Your task to perform on an android device: toggle priority inbox in the gmail app Image 0: 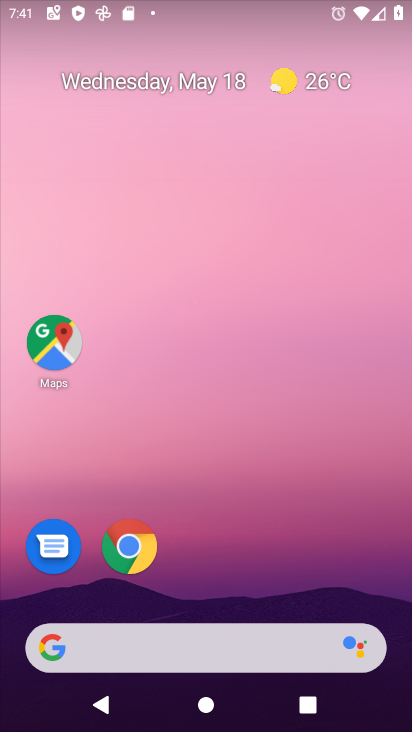
Step 0: drag from (379, 605) to (332, 57)
Your task to perform on an android device: toggle priority inbox in the gmail app Image 1: 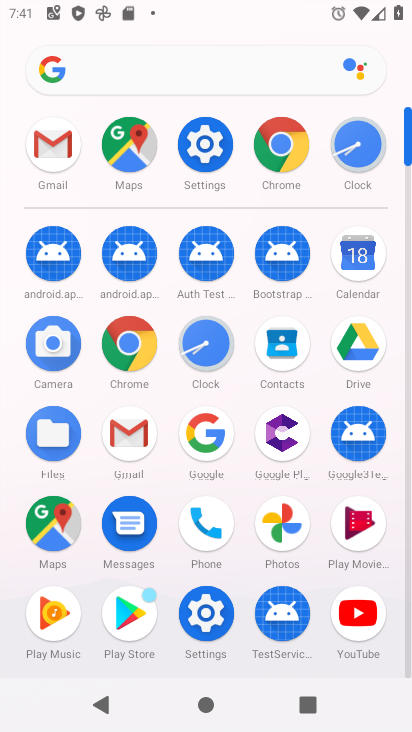
Step 1: click (129, 438)
Your task to perform on an android device: toggle priority inbox in the gmail app Image 2: 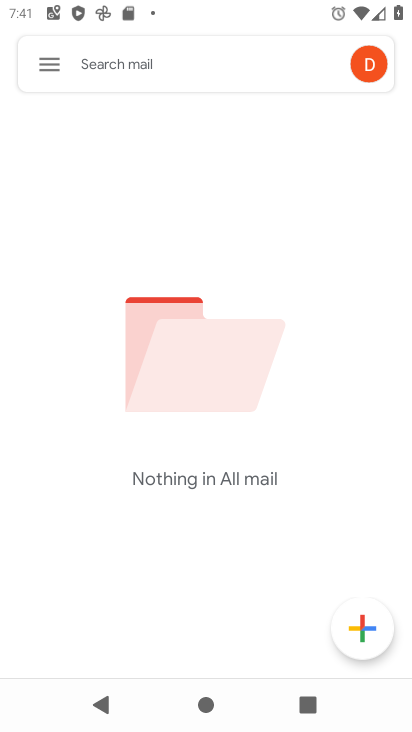
Step 2: click (41, 58)
Your task to perform on an android device: toggle priority inbox in the gmail app Image 3: 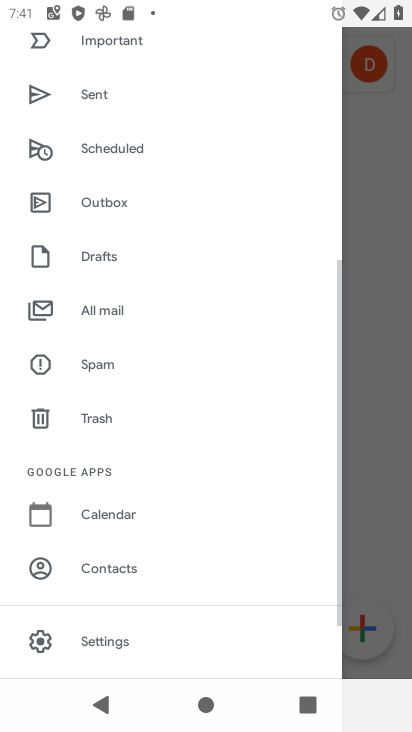
Step 3: click (137, 633)
Your task to perform on an android device: toggle priority inbox in the gmail app Image 4: 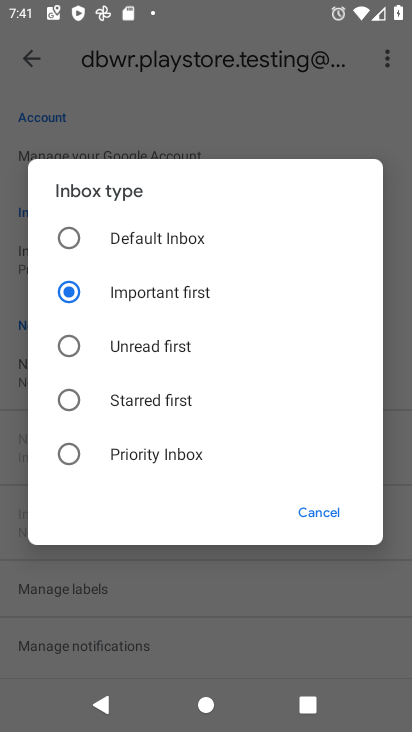
Step 4: click (331, 514)
Your task to perform on an android device: toggle priority inbox in the gmail app Image 5: 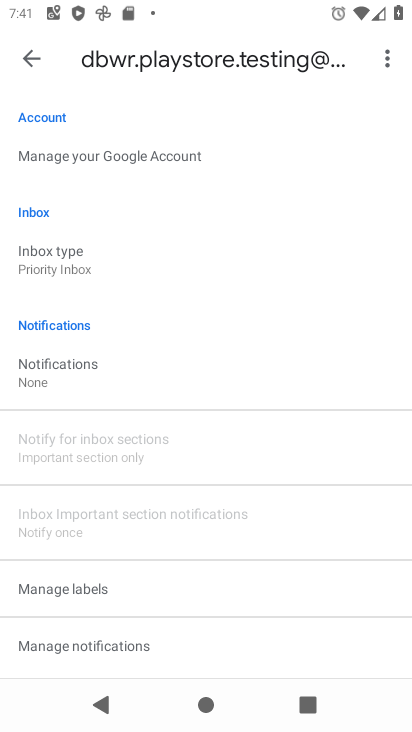
Step 5: click (87, 255)
Your task to perform on an android device: toggle priority inbox in the gmail app Image 6: 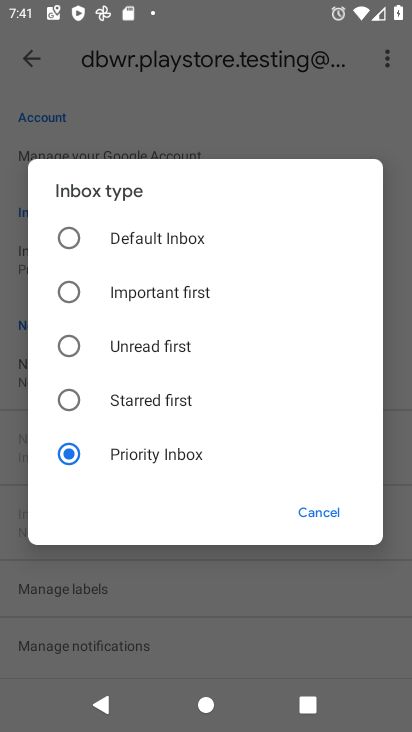
Step 6: click (170, 403)
Your task to perform on an android device: toggle priority inbox in the gmail app Image 7: 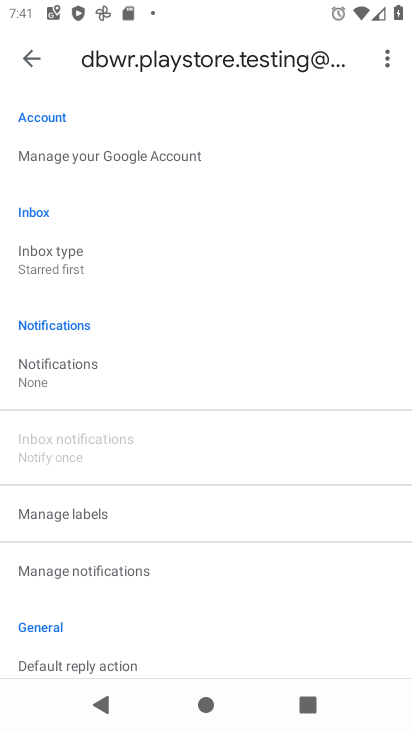
Step 7: task complete